Your task to perform on an android device: Show me the alarms in the clock app Image 0: 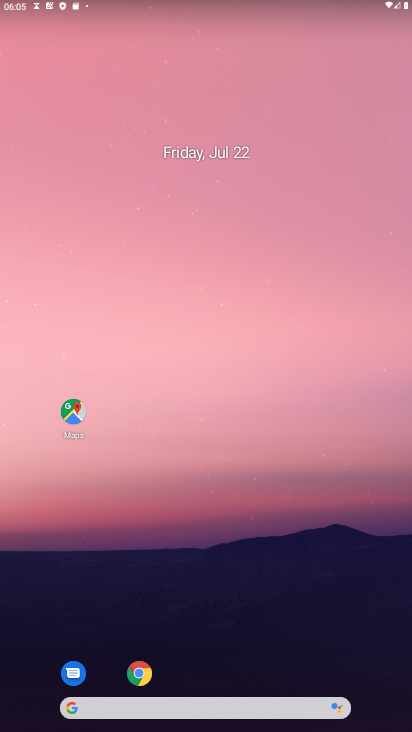
Step 0: drag from (211, 663) to (172, 270)
Your task to perform on an android device: Show me the alarms in the clock app Image 1: 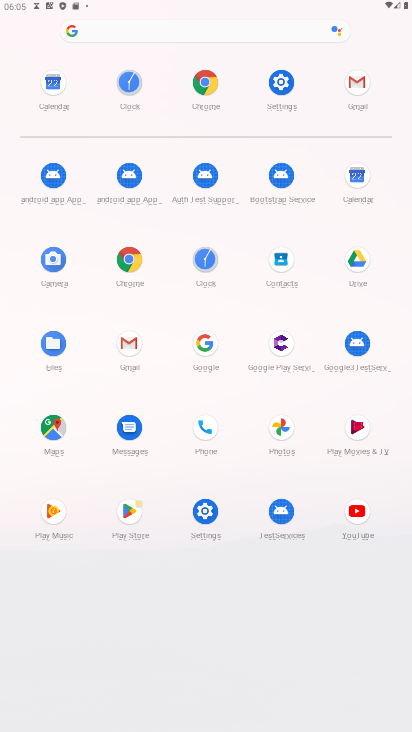
Step 1: click (212, 265)
Your task to perform on an android device: Show me the alarms in the clock app Image 2: 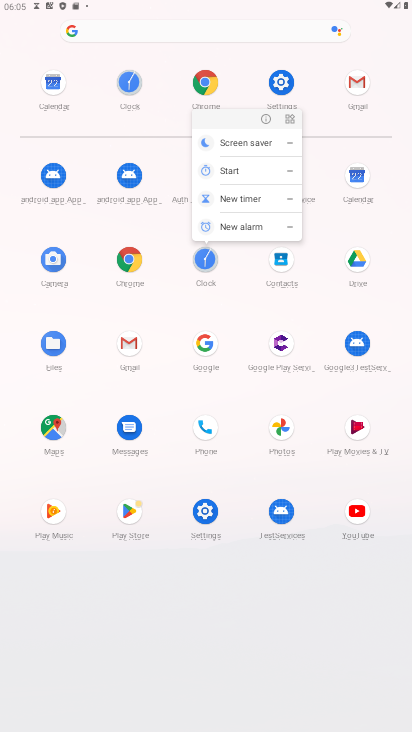
Step 2: click (212, 265)
Your task to perform on an android device: Show me the alarms in the clock app Image 3: 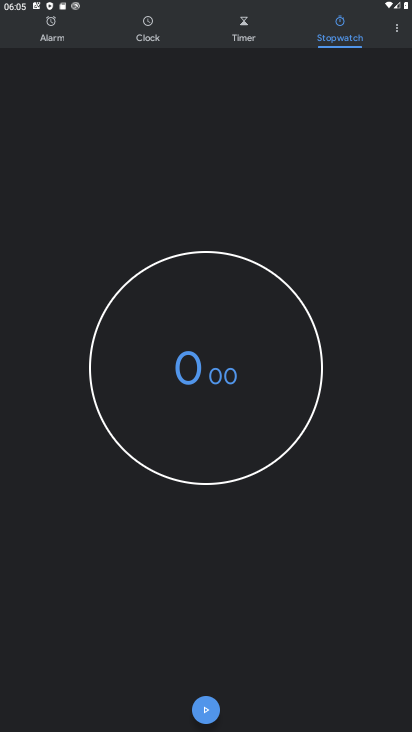
Step 3: click (54, 31)
Your task to perform on an android device: Show me the alarms in the clock app Image 4: 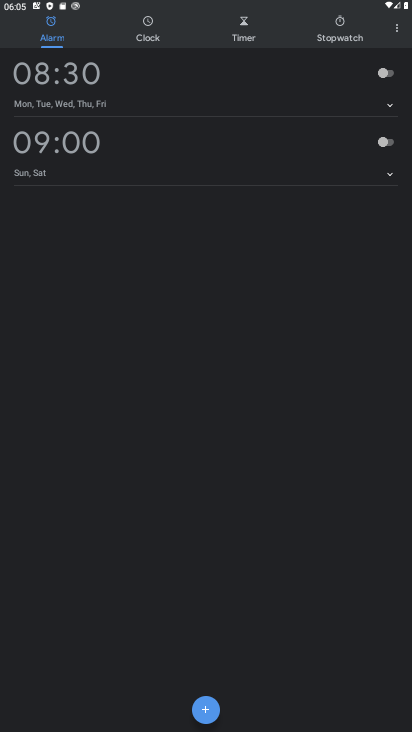
Step 4: task complete